Your task to perform on an android device: Open maps Image 0: 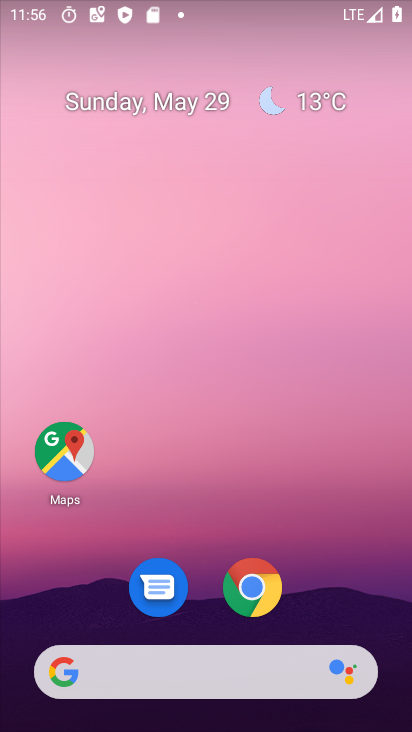
Step 0: click (53, 449)
Your task to perform on an android device: Open maps Image 1: 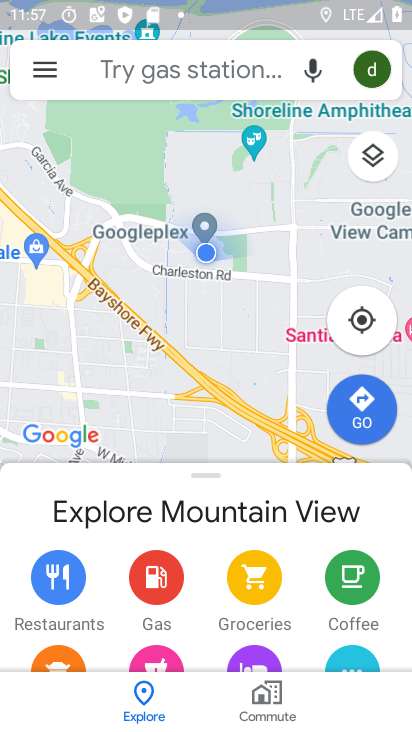
Step 1: task complete